Your task to perform on an android device: Check the weather Image 0: 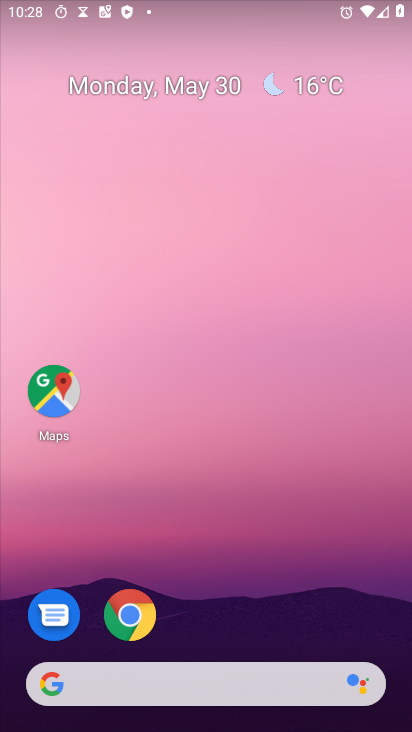
Step 0: drag from (307, 546) to (136, 6)
Your task to perform on an android device: Check the weather Image 1: 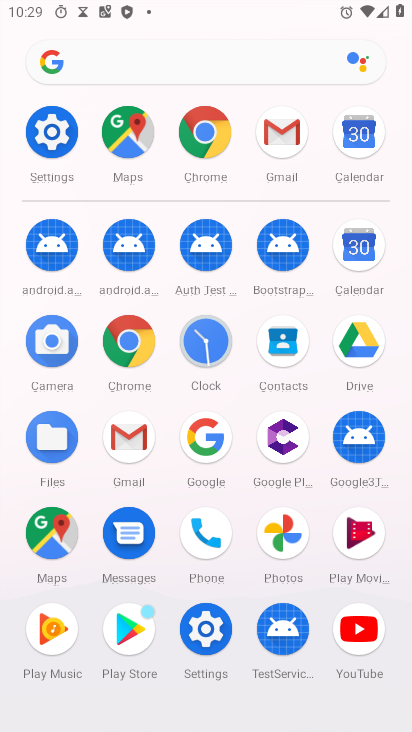
Step 1: click (49, 62)
Your task to perform on an android device: Check the weather Image 2: 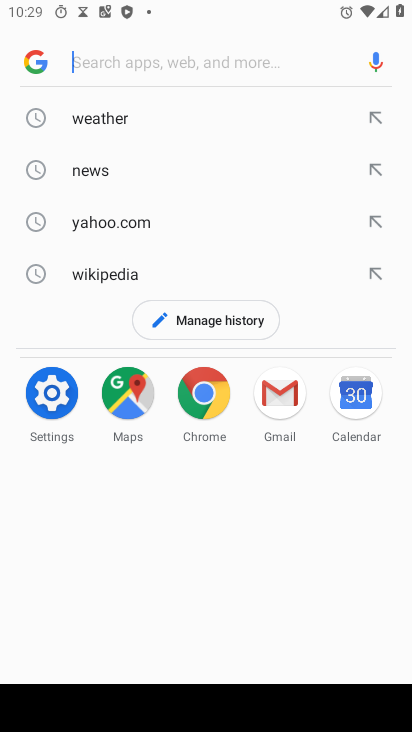
Step 2: click (22, 68)
Your task to perform on an android device: Check the weather Image 3: 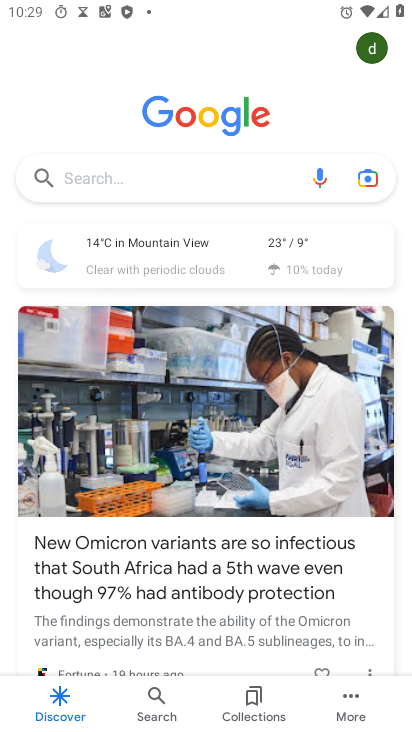
Step 3: click (226, 239)
Your task to perform on an android device: Check the weather Image 4: 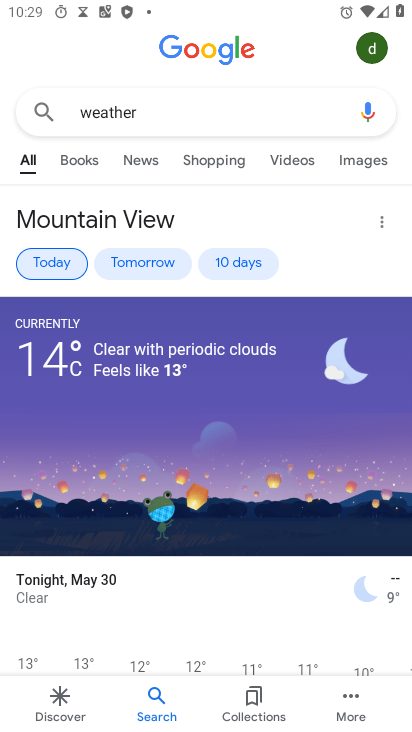
Step 4: task complete